Your task to perform on an android device: What's the weather going to be tomorrow? Image 0: 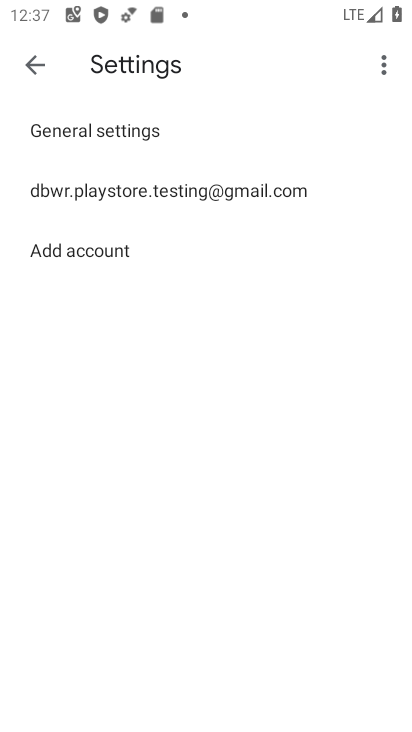
Step 0: press home button
Your task to perform on an android device: What's the weather going to be tomorrow? Image 1: 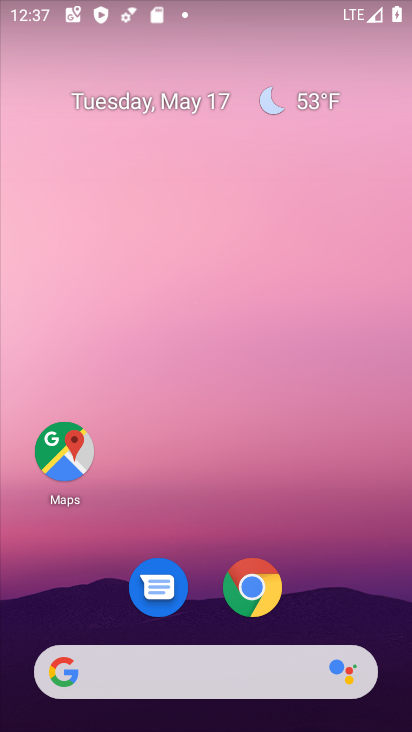
Step 1: drag from (222, 618) to (146, 12)
Your task to perform on an android device: What's the weather going to be tomorrow? Image 2: 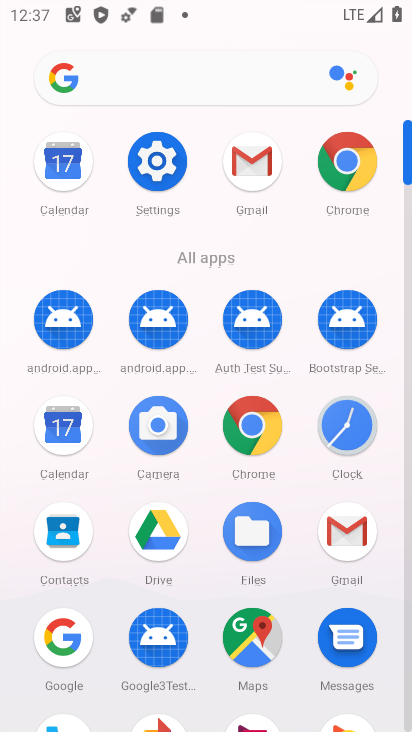
Step 2: click (54, 435)
Your task to perform on an android device: What's the weather going to be tomorrow? Image 3: 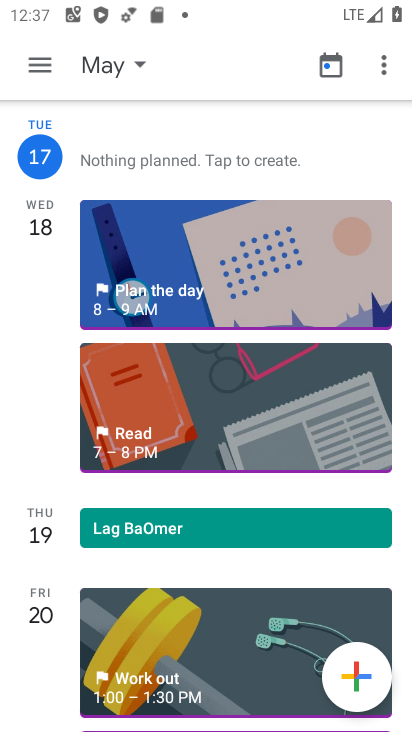
Step 3: click (44, 211)
Your task to perform on an android device: What's the weather going to be tomorrow? Image 4: 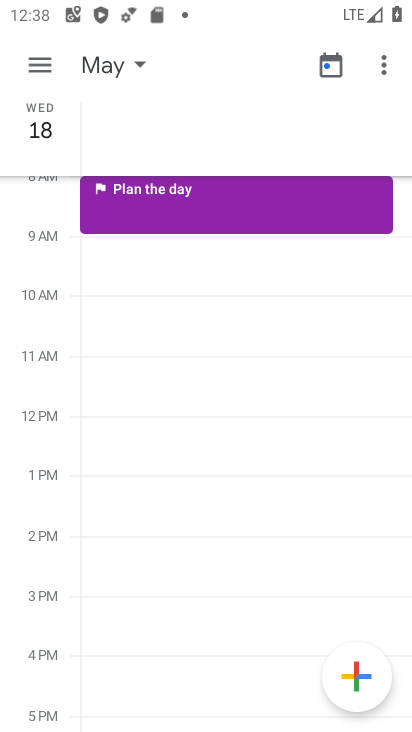
Step 4: press home button
Your task to perform on an android device: What's the weather going to be tomorrow? Image 5: 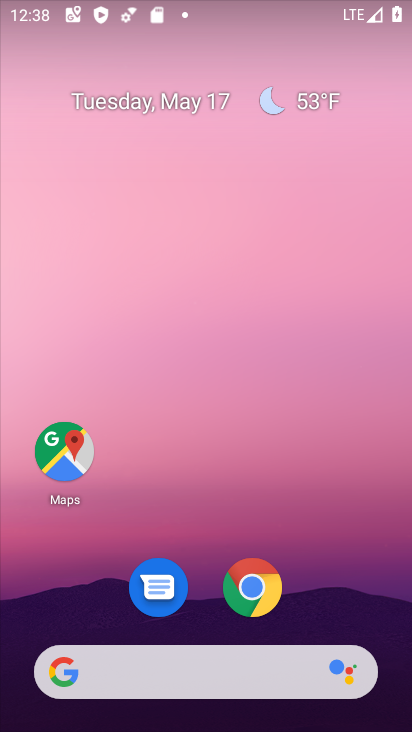
Step 5: click (164, 703)
Your task to perform on an android device: What's the weather going to be tomorrow? Image 6: 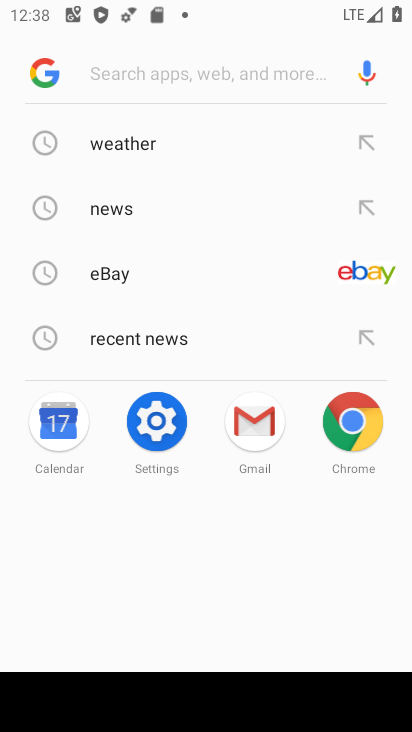
Step 6: click (96, 144)
Your task to perform on an android device: What's the weather going to be tomorrow? Image 7: 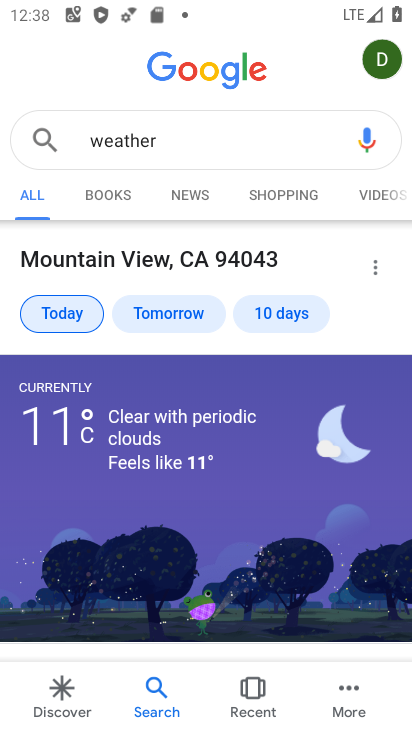
Step 7: click (209, 325)
Your task to perform on an android device: What's the weather going to be tomorrow? Image 8: 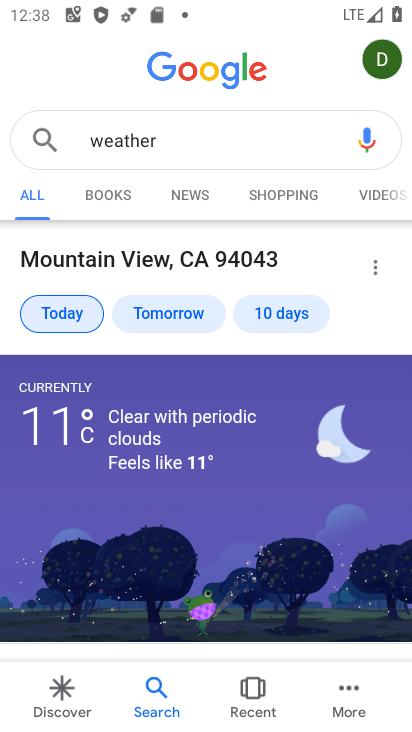
Step 8: click (210, 324)
Your task to perform on an android device: What's the weather going to be tomorrow? Image 9: 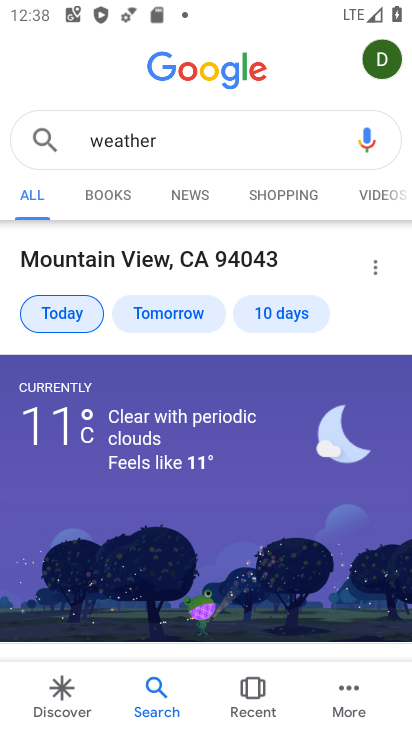
Step 9: click (199, 303)
Your task to perform on an android device: What's the weather going to be tomorrow? Image 10: 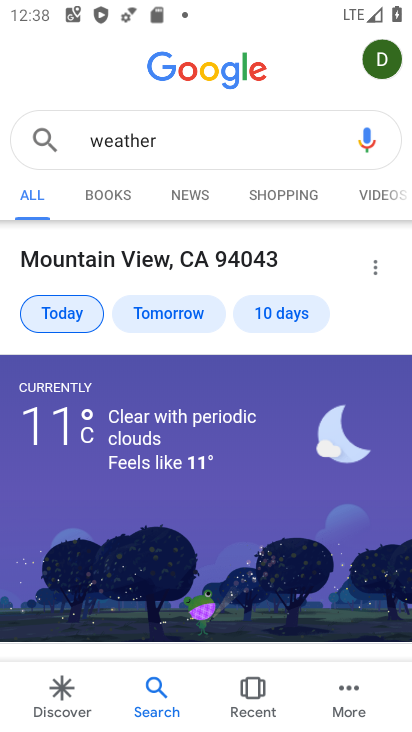
Step 10: task complete